Your task to perform on an android device: clear all cookies in the chrome app Image 0: 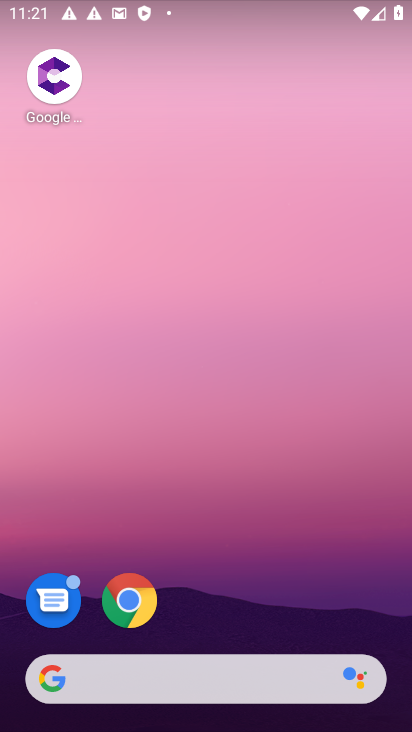
Step 0: click (155, 610)
Your task to perform on an android device: clear all cookies in the chrome app Image 1: 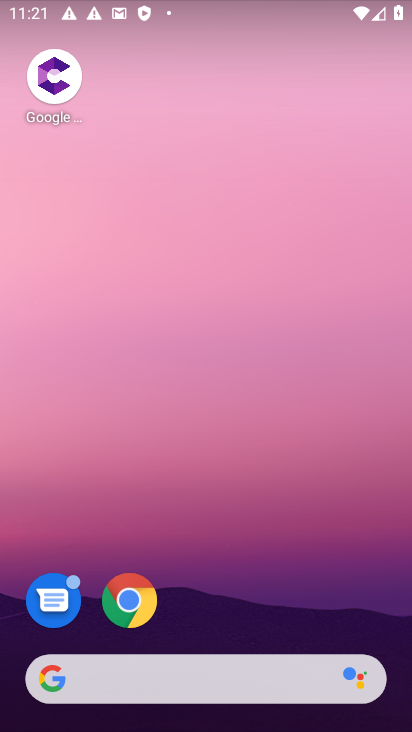
Step 1: click (155, 610)
Your task to perform on an android device: clear all cookies in the chrome app Image 2: 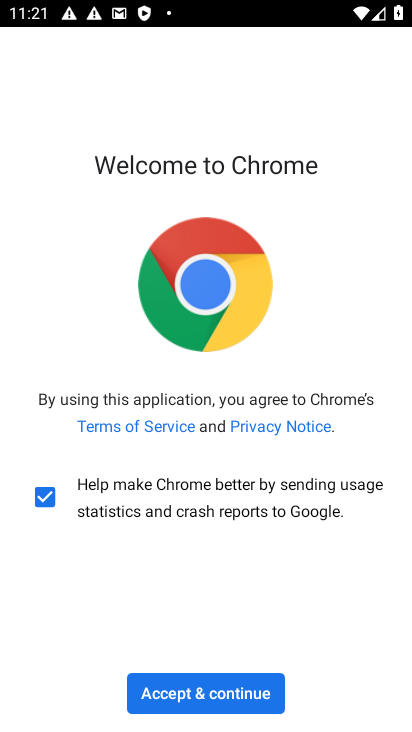
Step 2: click (200, 681)
Your task to perform on an android device: clear all cookies in the chrome app Image 3: 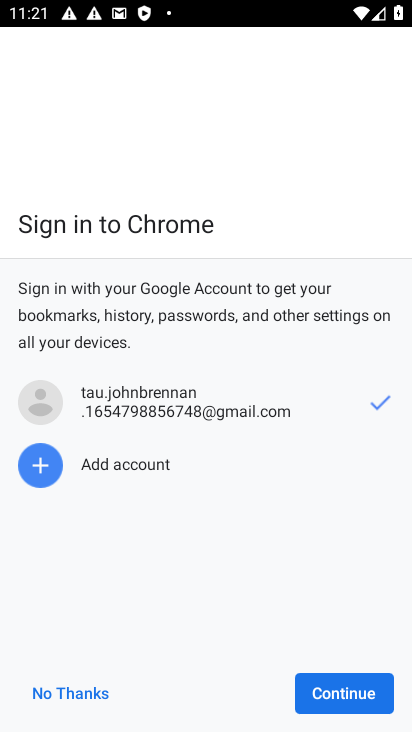
Step 3: click (347, 690)
Your task to perform on an android device: clear all cookies in the chrome app Image 4: 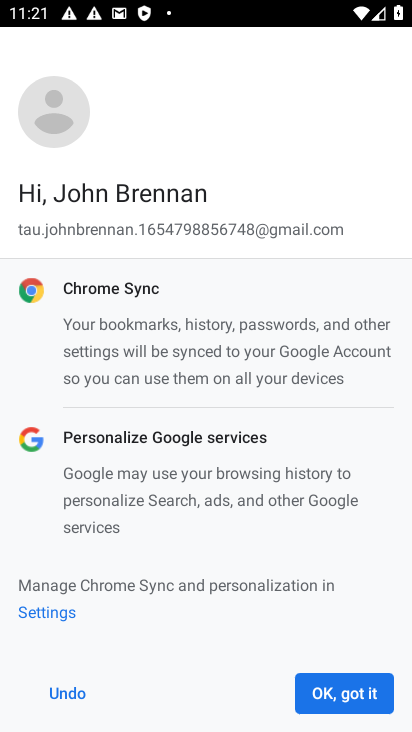
Step 4: click (347, 690)
Your task to perform on an android device: clear all cookies in the chrome app Image 5: 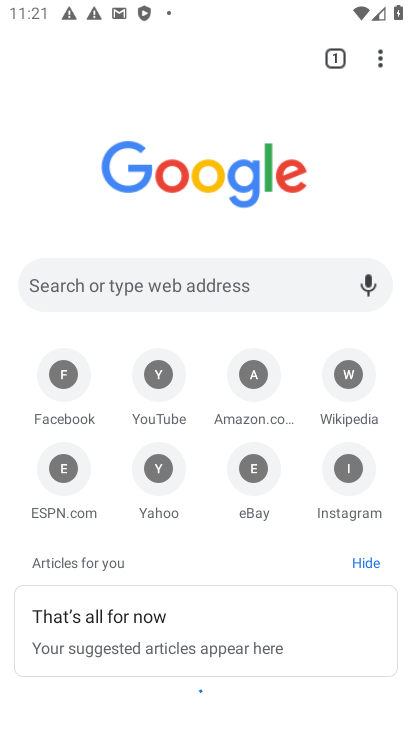
Step 5: click (379, 60)
Your task to perform on an android device: clear all cookies in the chrome app Image 6: 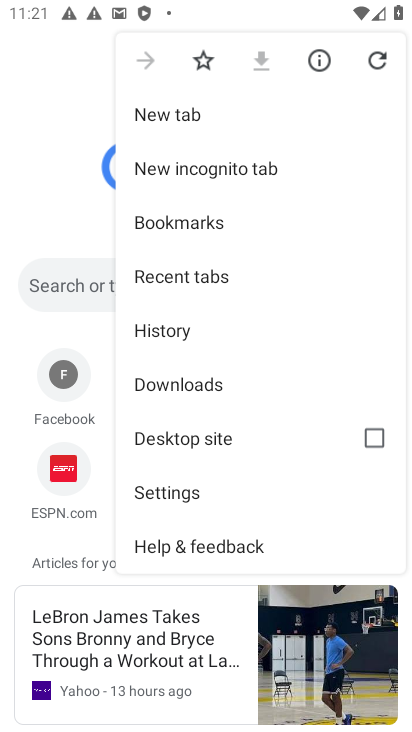
Step 6: click (178, 332)
Your task to perform on an android device: clear all cookies in the chrome app Image 7: 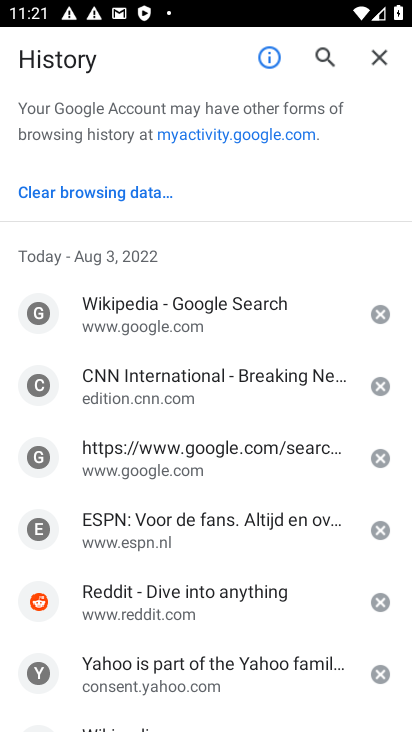
Step 7: click (101, 196)
Your task to perform on an android device: clear all cookies in the chrome app Image 8: 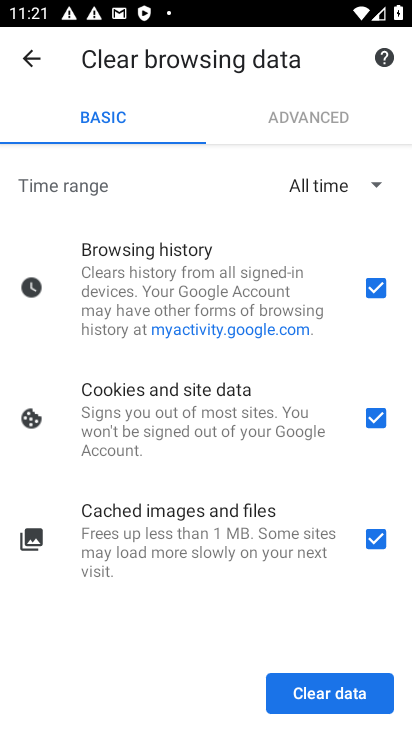
Step 8: click (352, 700)
Your task to perform on an android device: clear all cookies in the chrome app Image 9: 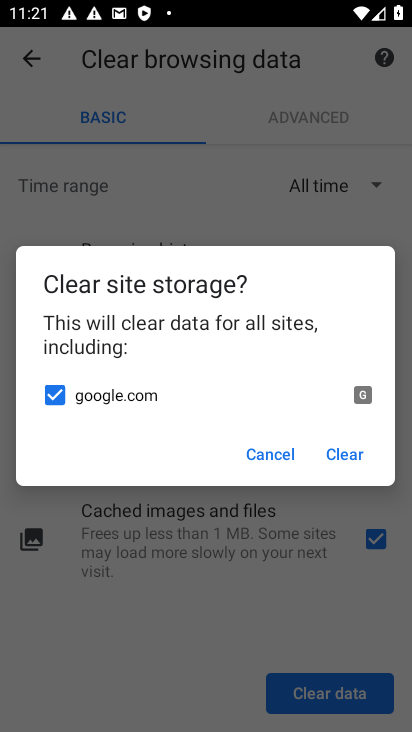
Step 9: click (348, 457)
Your task to perform on an android device: clear all cookies in the chrome app Image 10: 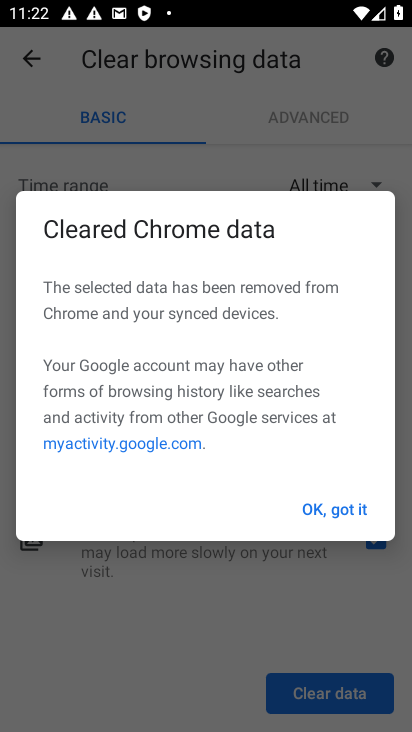
Step 10: click (342, 502)
Your task to perform on an android device: clear all cookies in the chrome app Image 11: 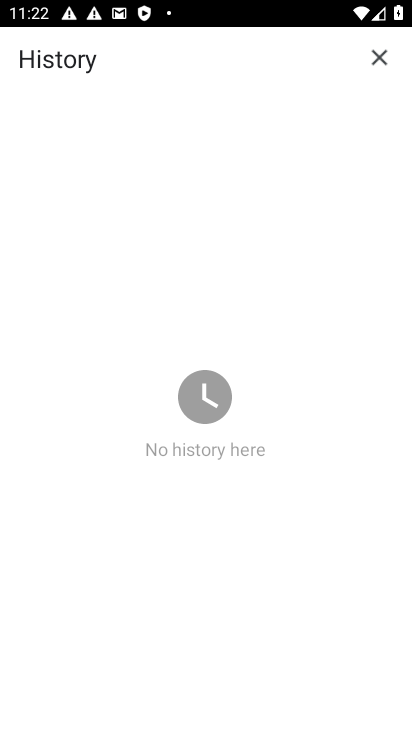
Step 11: task complete